Your task to perform on an android device: Open the calendar app, open the side menu, and click the "Day" option Image 0: 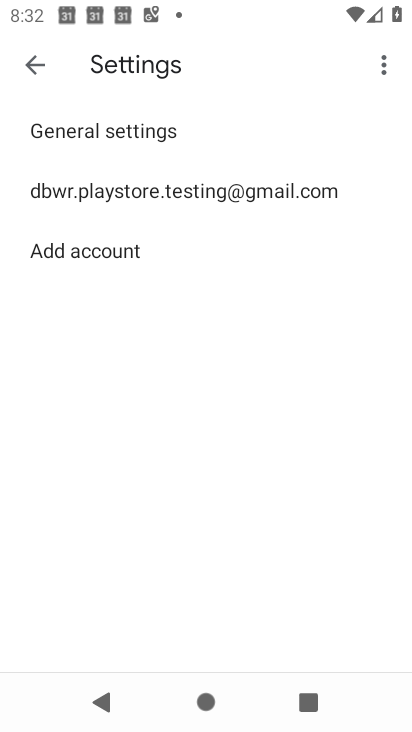
Step 0: press home button
Your task to perform on an android device: Open the calendar app, open the side menu, and click the "Day" option Image 1: 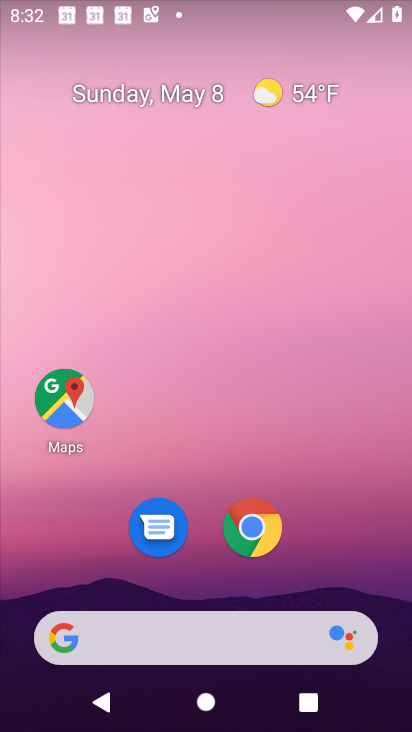
Step 1: drag from (324, 587) to (273, 64)
Your task to perform on an android device: Open the calendar app, open the side menu, and click the "Day" option Image 2: 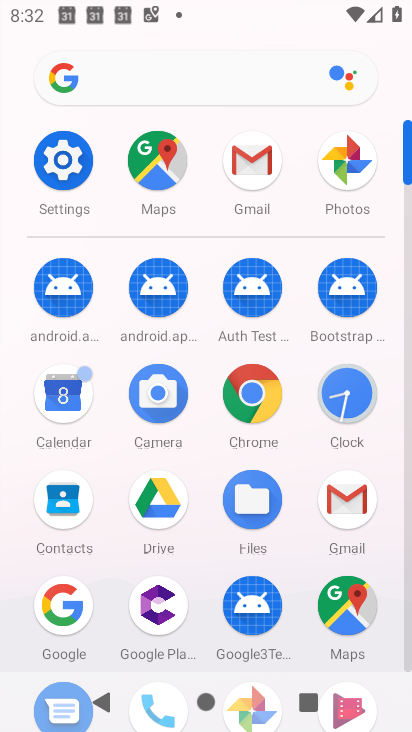
Step 2: click (65, 397)
Your task to perform on an android device: Open the calendar app, open the side menu, and click the "Day" option Image 3: 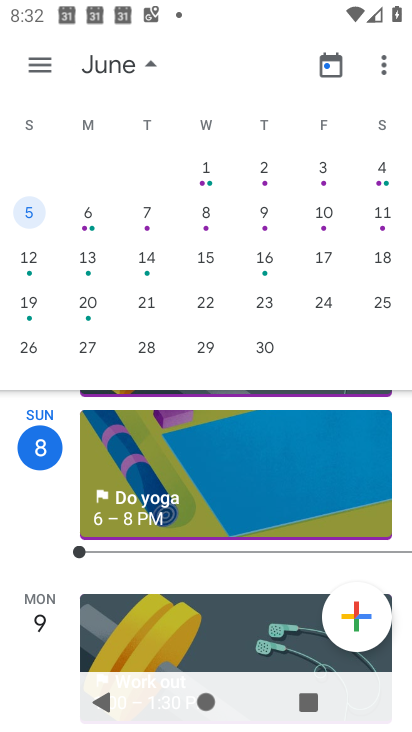
Step 3: click (37, 61)
Your task to perform on an android device: Open the calendar app, open the side menu, and click the "Day" option Image 4: 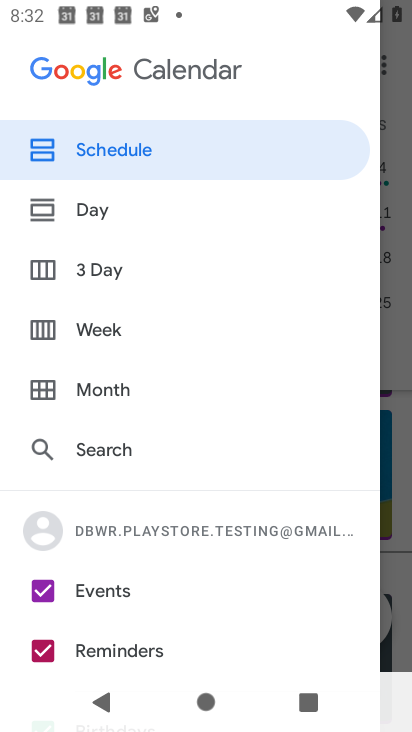
Step 4: click (97, 211)
Your task to perform on an android device: Open the calendar app, open the side menu, and click the "Day" option Image 5: 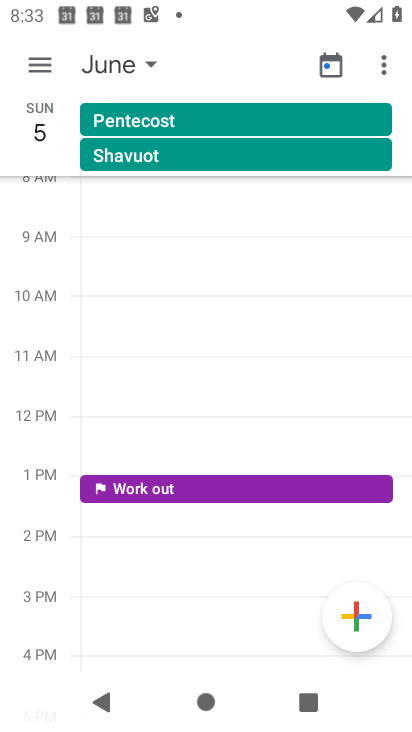
Step 5: task complete